Your task to perform on an android device: check google app version Image 0: 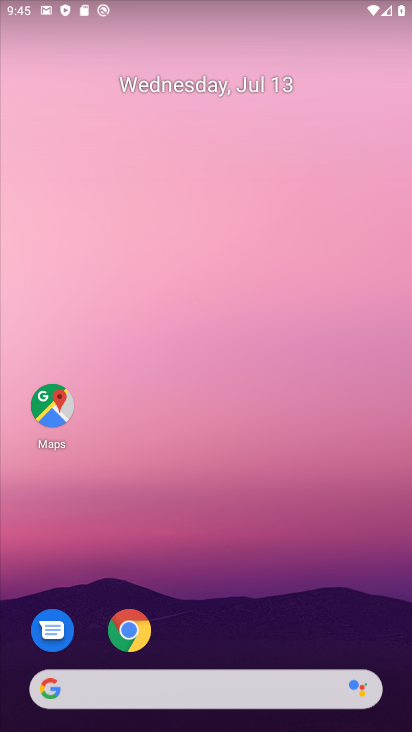
Step 0: drag from (150, 605) to (269, 138)
Your task to perform on an android device: check google app version Image 1: 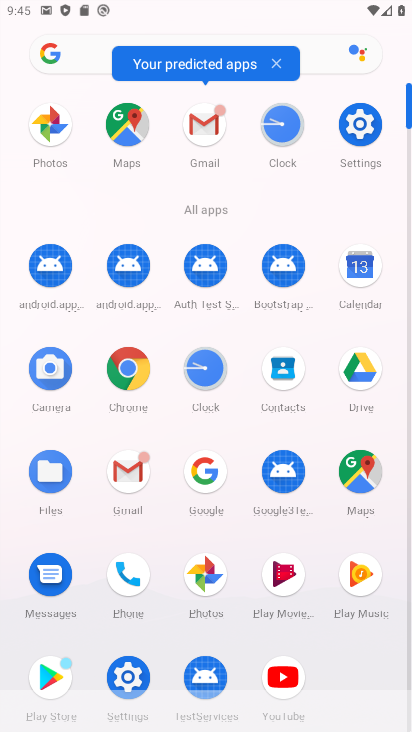
Step 1: click (129, 662)
Your task to perform on an android device: check google app version Image 2: 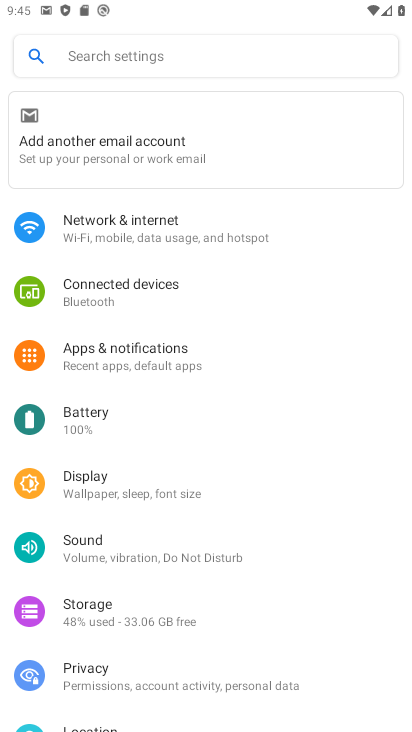
Step 2: click (134, 346)
Your task to perform on an android device: check google app version Image 3: 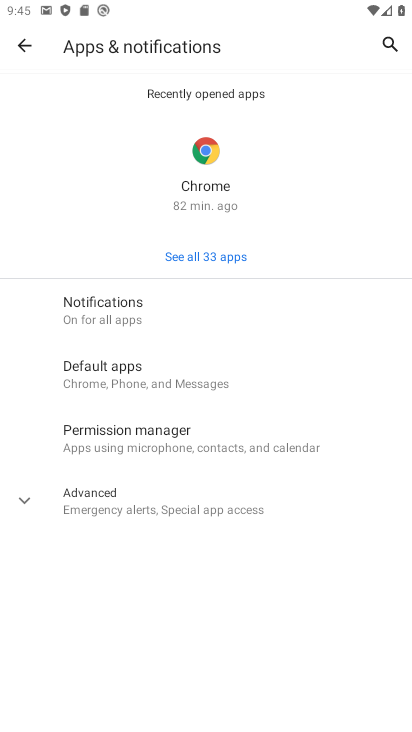
Step 3: click (199, 255)
Your task to perform on an android device: check google app version Image 4: 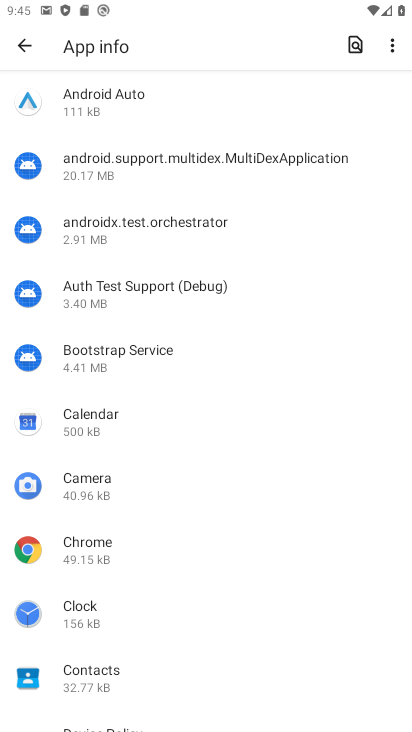
Step 4: drag from (155, 632) to (246, 211)
Your task to perform on an android device: check google app version Image 5: 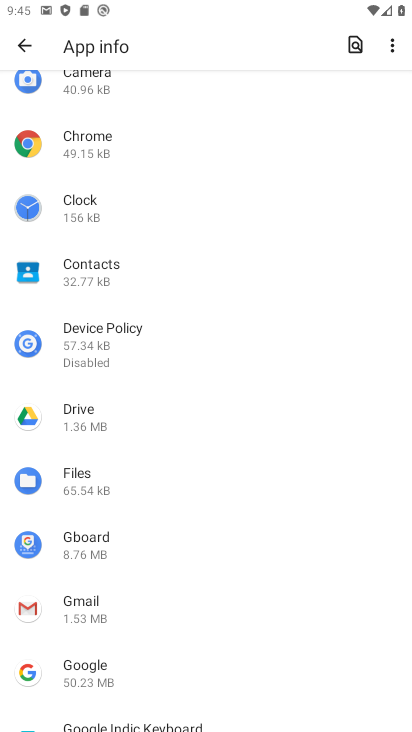
Step 5: click (126, 654)
Your task to perform on an android device: check google app version Image 6: 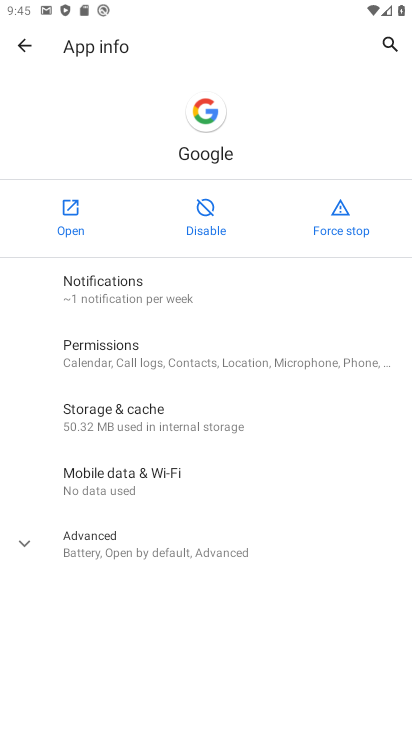
Step 6: click (153, 554)
Your task to perform on an android device: check google app version Image 7: 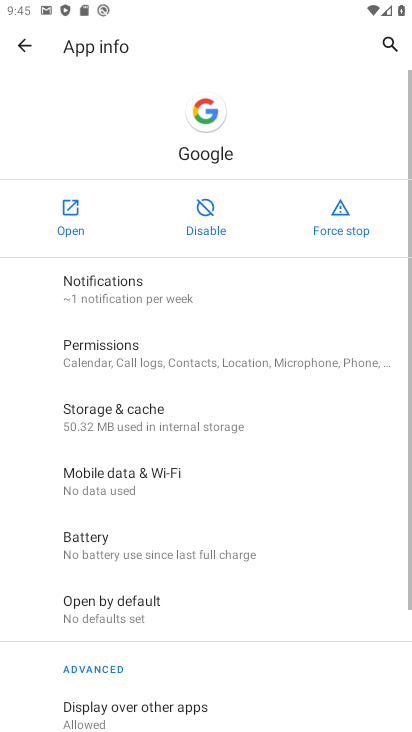
Step 7: task complete